Your task to perform on an android device: turn on the 12-hour format for clock Image 0: 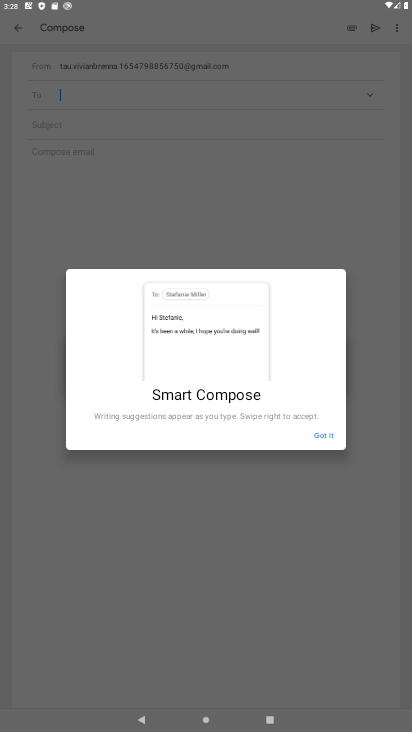
Step 0: press home button
Your task to perform on an android device: turn on the 12-hour format for clock Image 1: 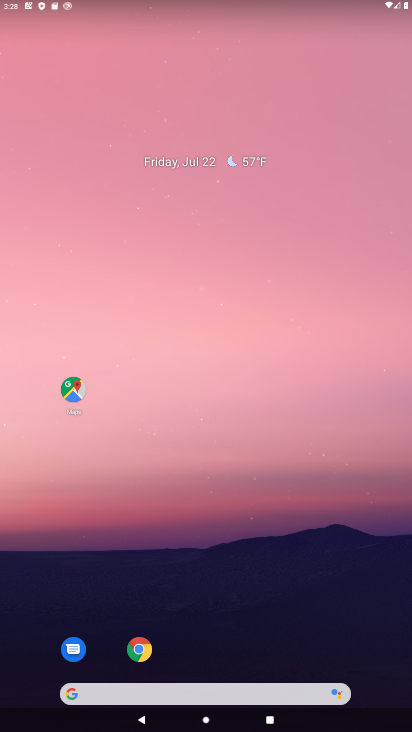
Step 1: drag from (28, 704) to (213, 328)
Your task to perform on an android device: turn on the 12-hour format for clock Image 2: 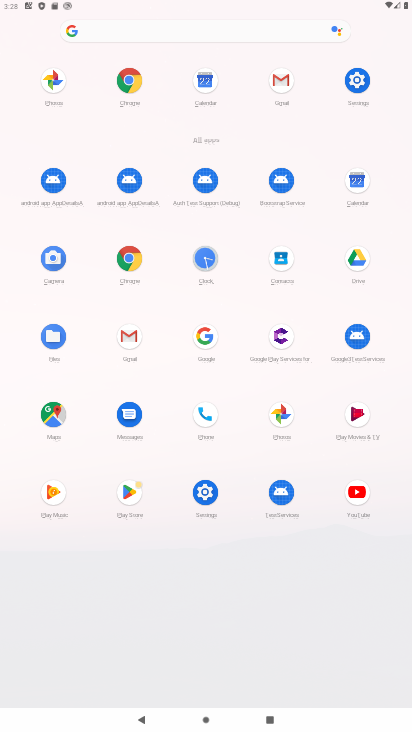
Step 2: click (193, 492)
Your task to perform on an android device: turn on the 12-hour format for clock Image 3: 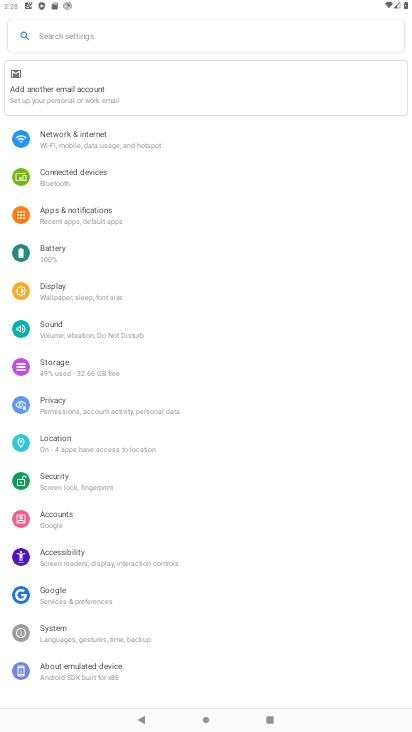
Step 3: task complete